Your task to perform on an android device: all mails in gmail Image 0: 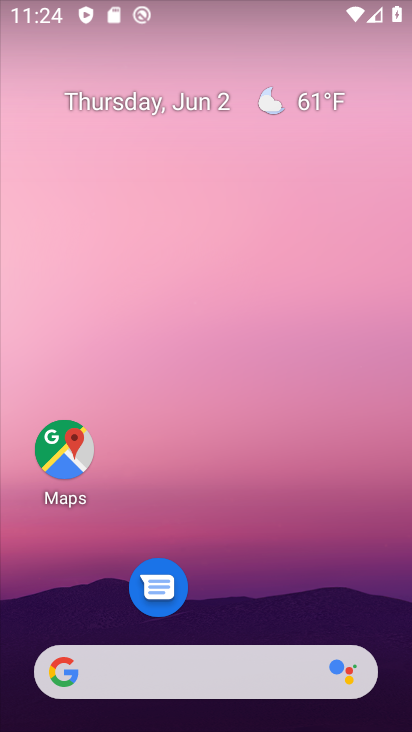
Step 0: drag from (200, 628) to (308, 5)
Your task to perform on an android device: all mails in gmail Image 1: 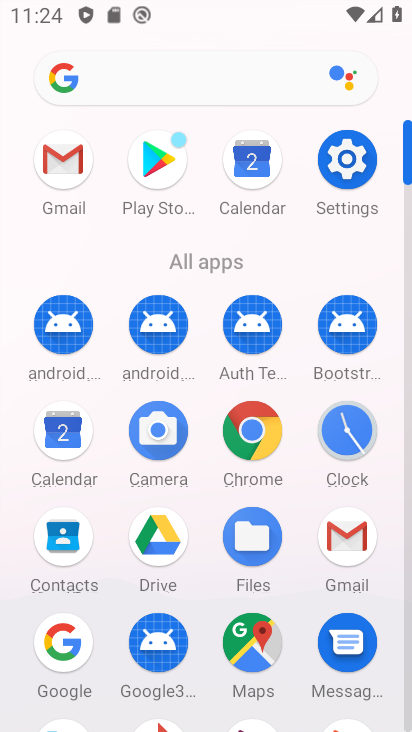
Step 1: click (357, 521)
Your task to perform on an android device: all mails in gmail Image 2: 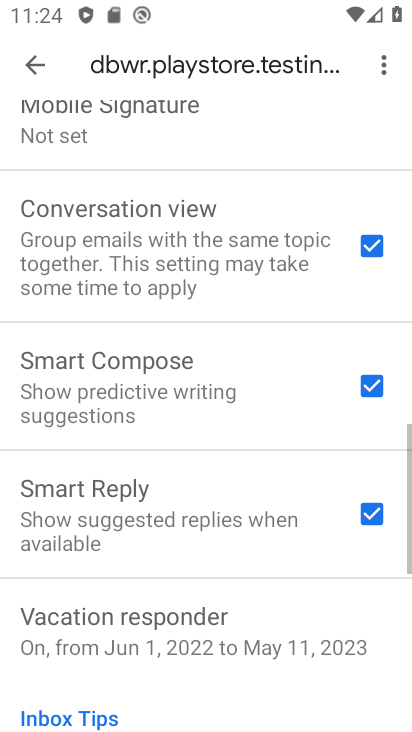
Step 2: click (31, 77)
Your task to perform on an android device: all mails in gmail Image 3: 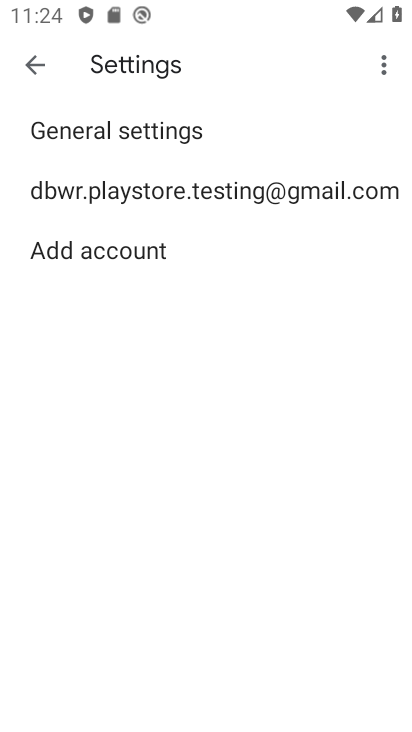
Step 3: click (28, 53)
Your task to perform on an android device: all mails in gmail Image 4: 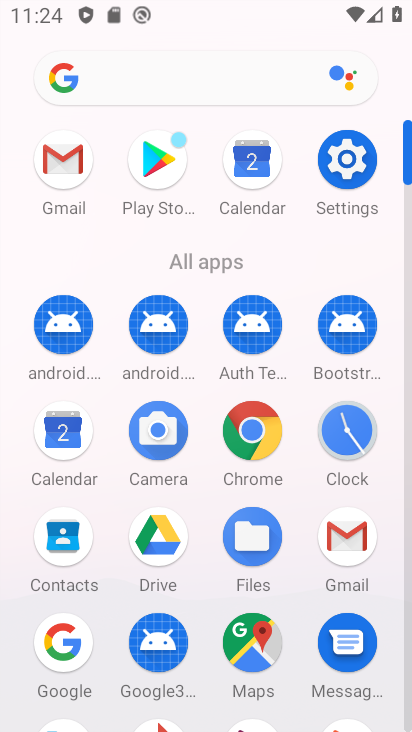
Step 4: click (345, 540)
Your task to perform on an android device: all mails in gmail Image 5: 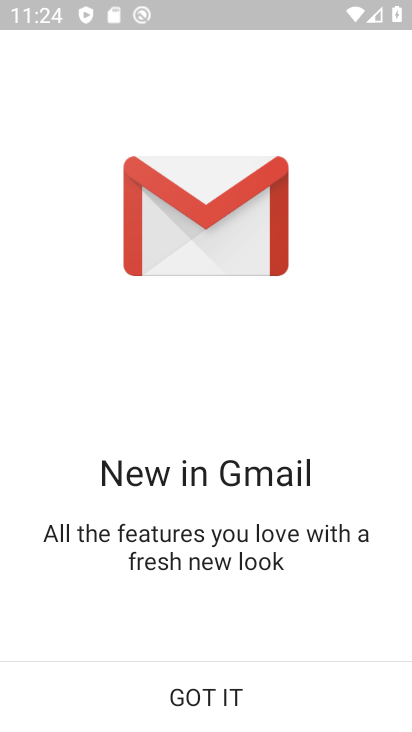
Step 5: click (268, 687)
Your task to perform on an android device: all mails in gmail Image 6: 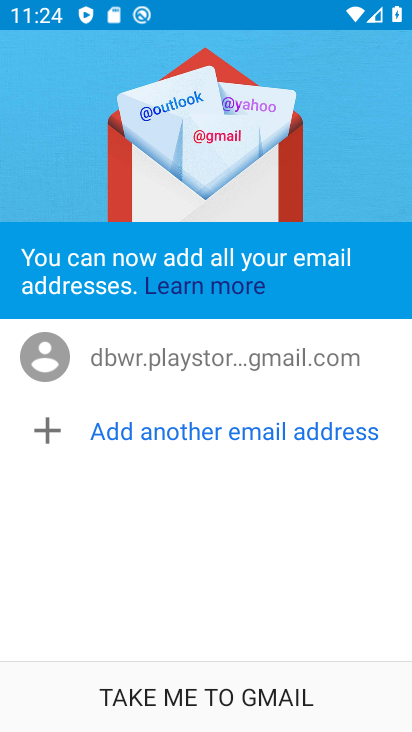
Step 6: click (268, 685)
Your task to perform on an android device: all mails in gmail Image 7: 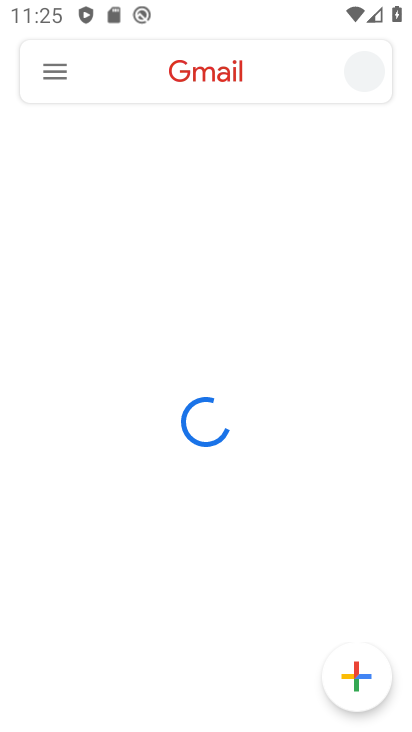
Step 7: click (43, 77)
Your task to perform on an android device: all mails in gmail Image 8: 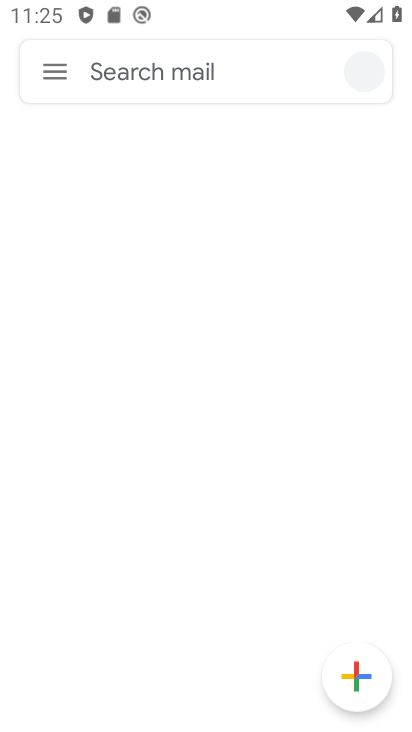
Step 8: click (379, 202)
Your task to perform on an android device: all mails in gmail Image 9: 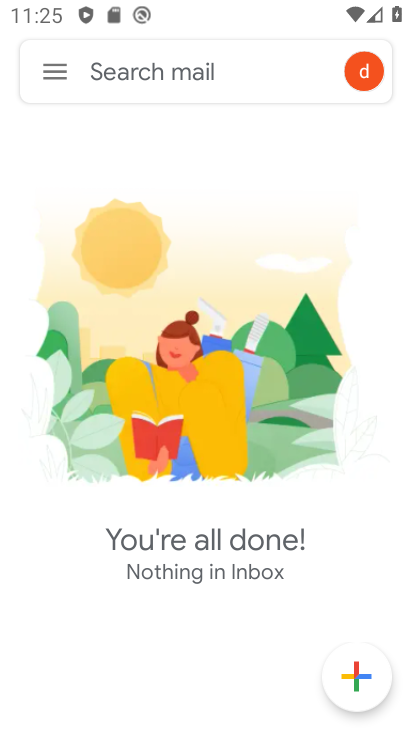
Step 9: click (63, 76)
Your task to perform on an android device: all mails in gmail Image 10: 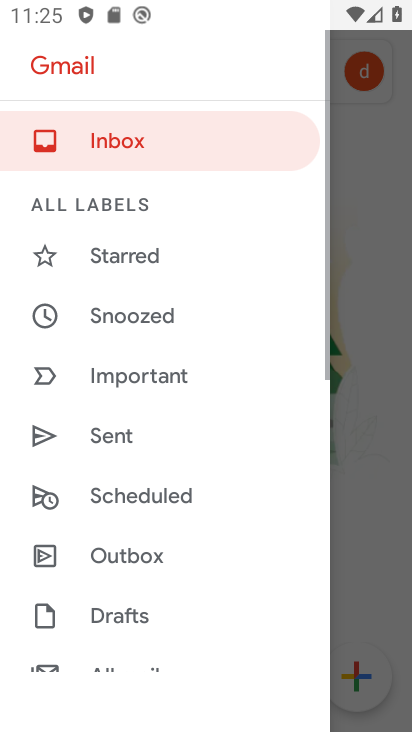
Step 10: drag from (162, 451) to (187, 154)
Your task to perform on an android device: all mails in gmail Image 11: 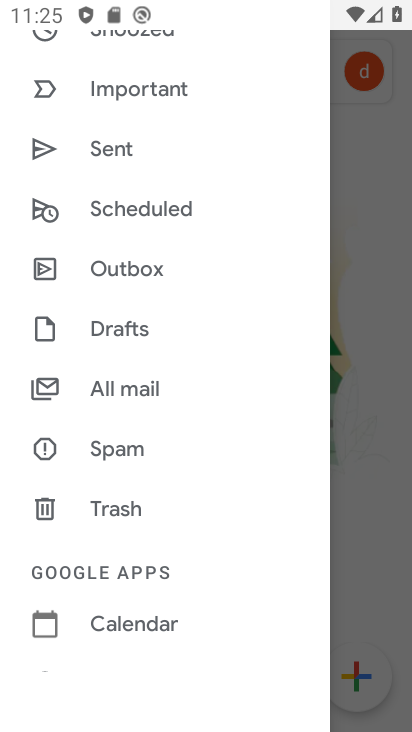
Step 11: click (132, 374)
Your task to perform on an android device: all mails in gmail Image 12: 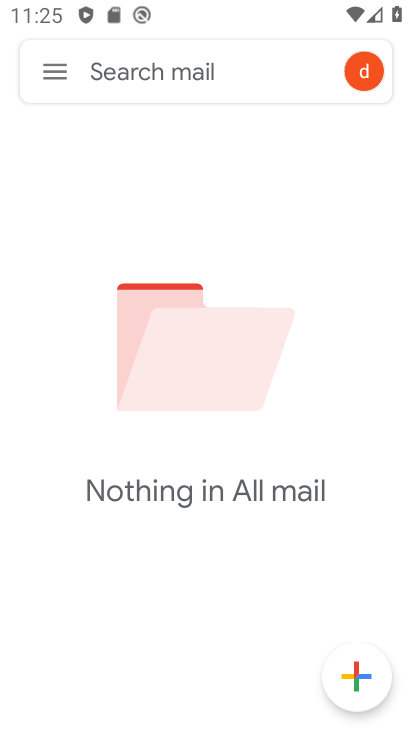
Step 12: task complete